Your task to perform on an android device: change text size in settings app Image 0: 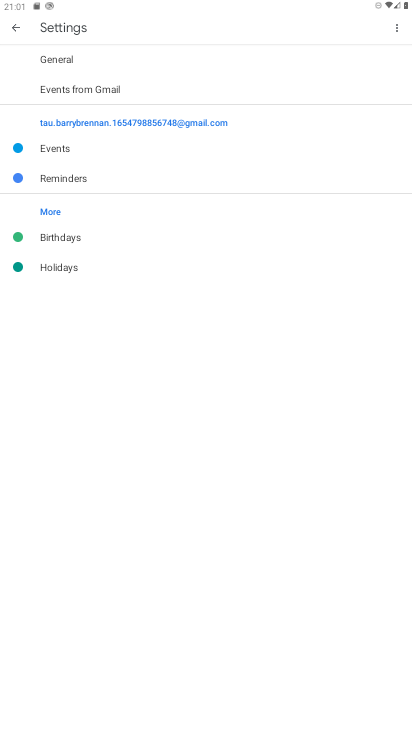
Step 0: press home button
Your task to perform on an android device: change text size in settings app Image 1: 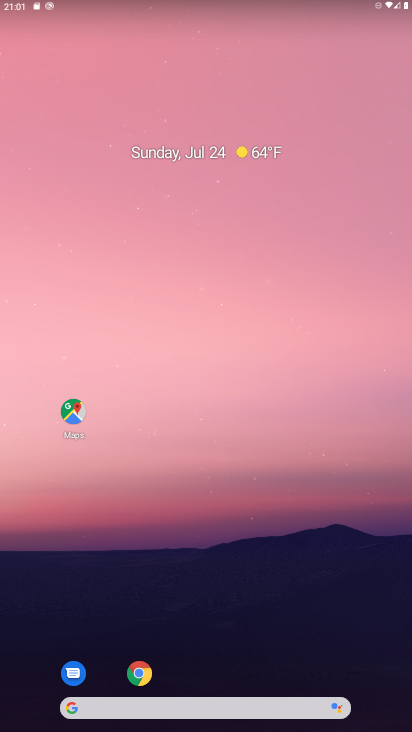
Step 1: drag from (283, 612) to (278, 161)
Your task to perform on an android device: change text size in settings app Image 2: 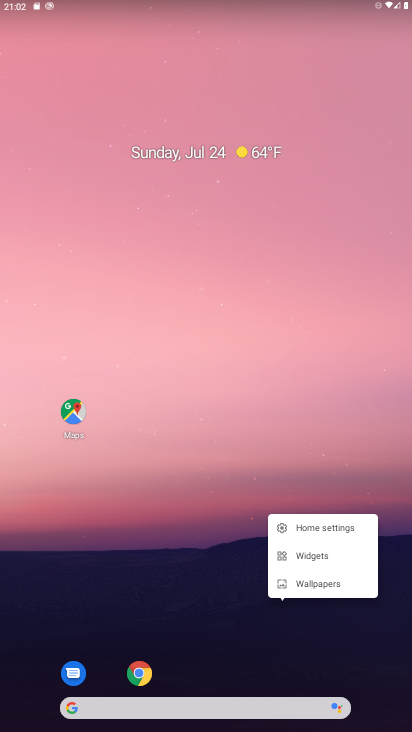
Step 2: click (177, 575)
Your task to perform on an android device: change text size in settings app Image 3: 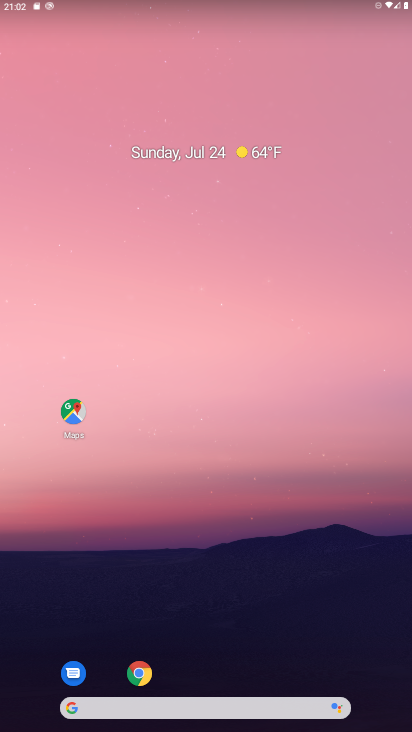
Step 3: drag from (252, 666) to (166, 62)
Your task to perform on an android device: change text size in settings app Image 4: 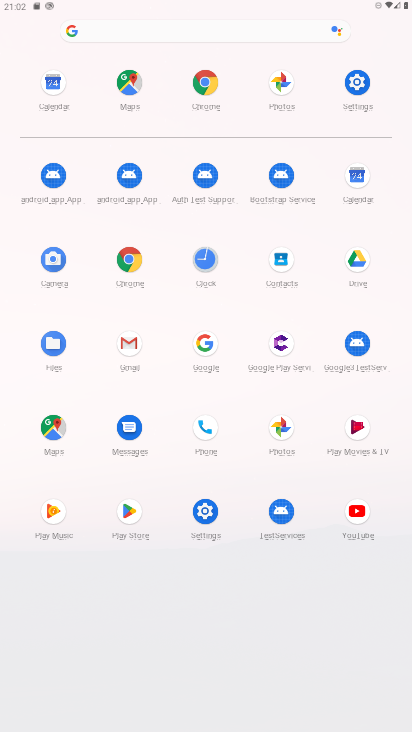
Step 4: click (361, 83)
Your task to perform on an android device: change text size in settings app Image 5: 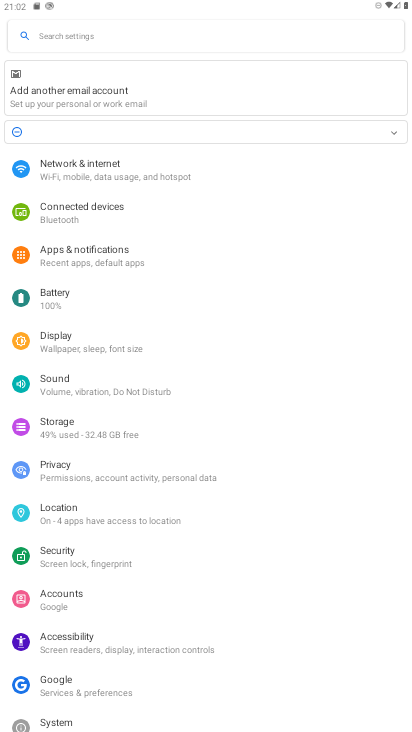
Step 5: click (72, 336)
Your task to perform on an android device: change text size in settings app Image 6: 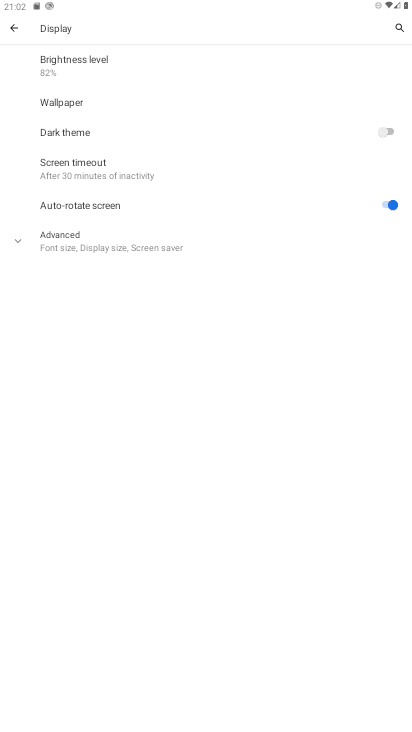
Step 6: click (91, 237)
Your task to perform on an android device: change text size in settings app Image 7: 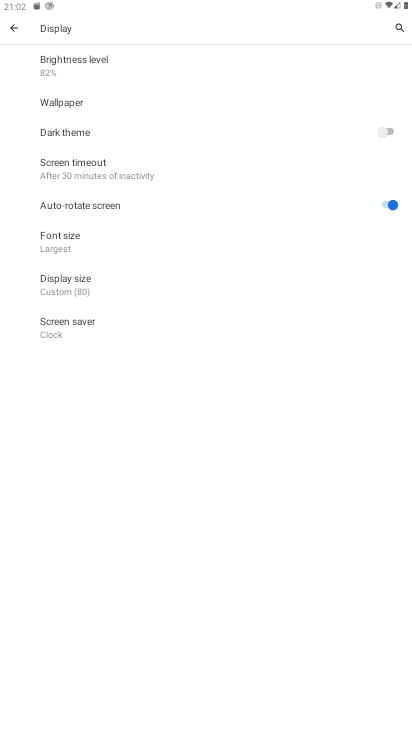
Step 7: click (94, 242)
Your task to perform on an android device: change text size in settings app Image 8: 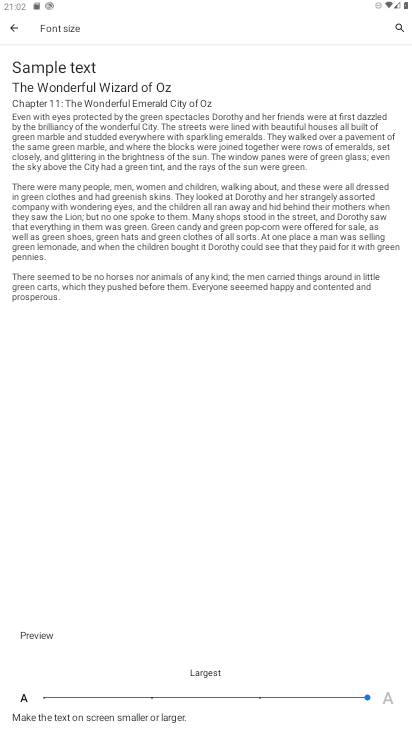
Step 8: task complete